Your task to perform on an android device: Open Android settings Image 0: 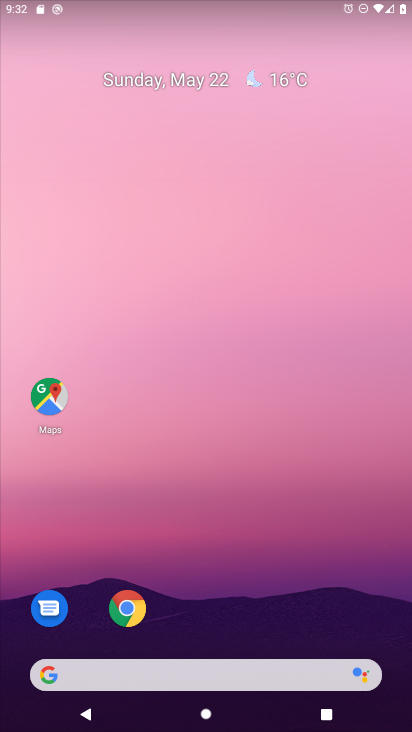
Step 0: drag from (217, 727) to (210, 131)
Your task to perform on an android device: Open Android settings Image 1: 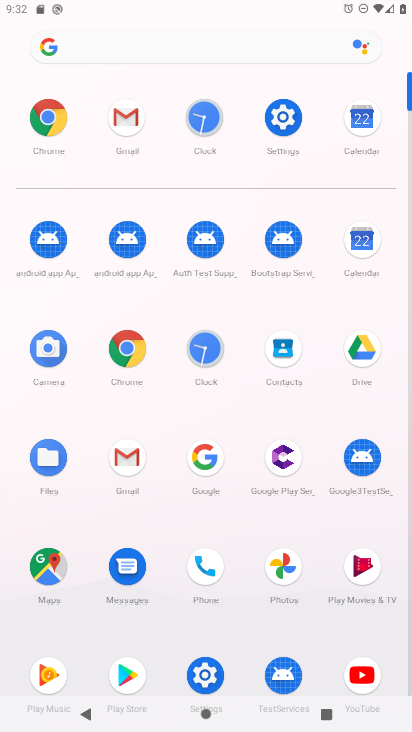
Step 1: click (284, 110)
Your task to perform on an android device: Open Android settings Image 2: 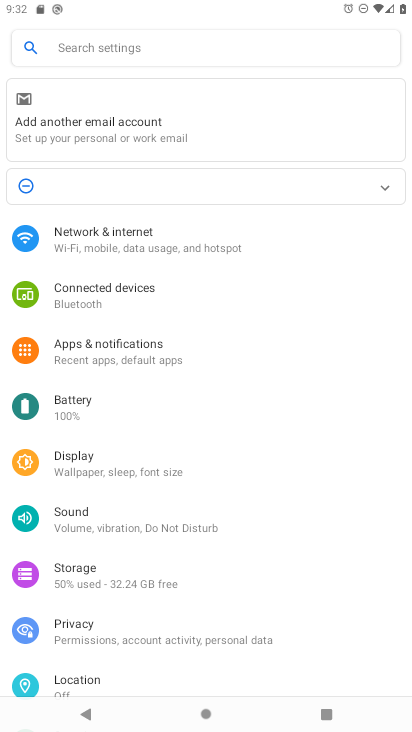
Step 2: task complete